Your task to perform on an android device: Go to Google maps Image 0: 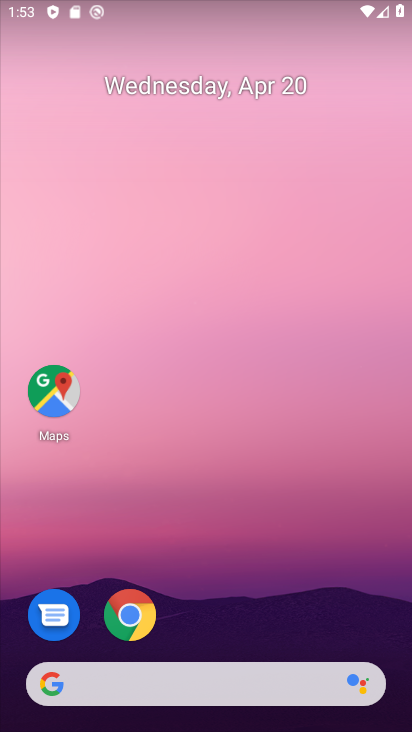
Step 0: drag from (301, 483) to (283, 24)
Your task to perform on an android device: Go to Google maps Image 1: 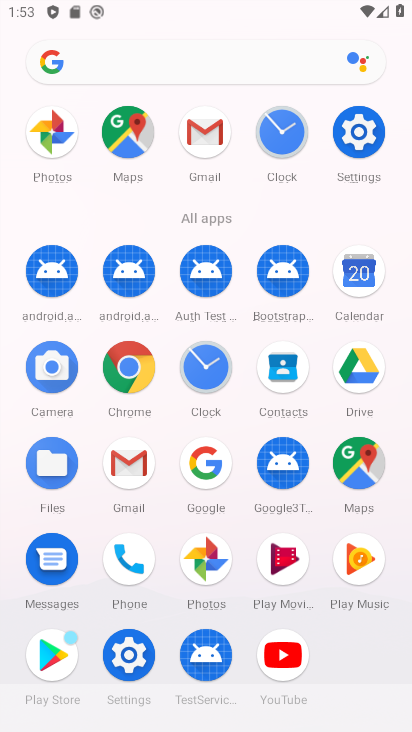
Step 1: click (118, 132)
Your task to perform on an android device: Go to Google maps Image 2: 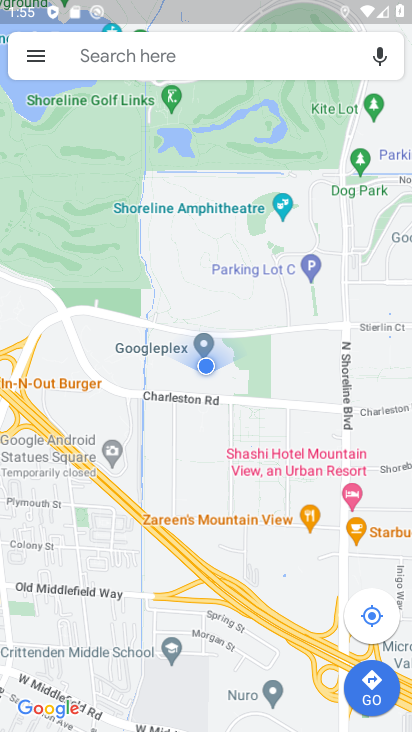
Step 2: task complete